Your task to perform on an android device: Open Chrome and go to the settings page Image 0: 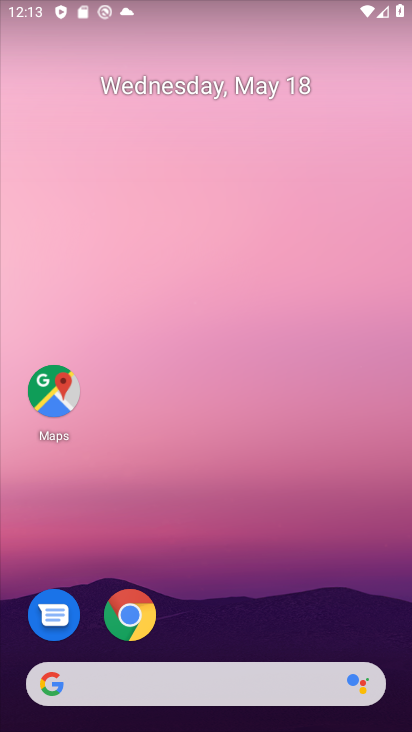
Step 0: click (139, 623)
Your task to perform on an android device: Open Chrome and go to the settings page Image 1: 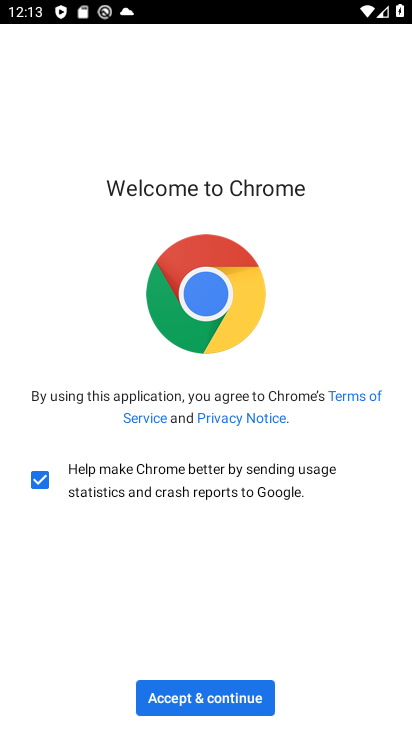
Step 1: click (265, 697)
Your task to perform on an android device: Open Chrome and go to the settings page Image 2: 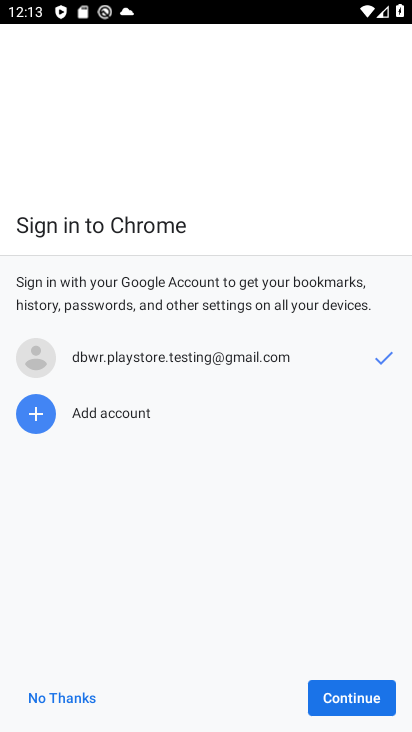
Step 2: click (265, 697)
Your task to perform on an android device: Open Chrome and go to the settings page Image 3: 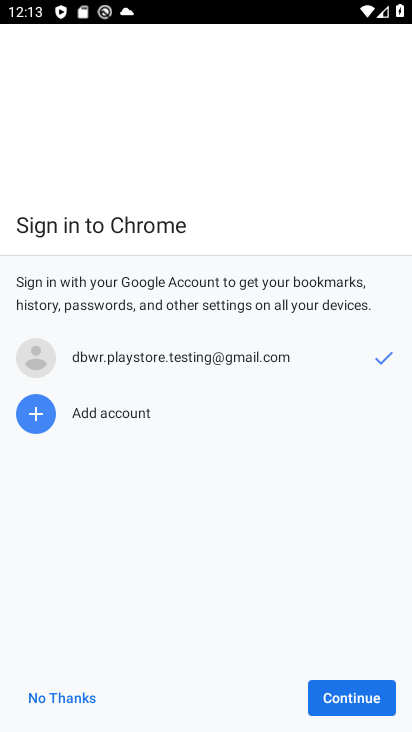
Step 3: click (339, 707)
Your task to perform on an android device: Open Chrome and go to the settings page Image 4: 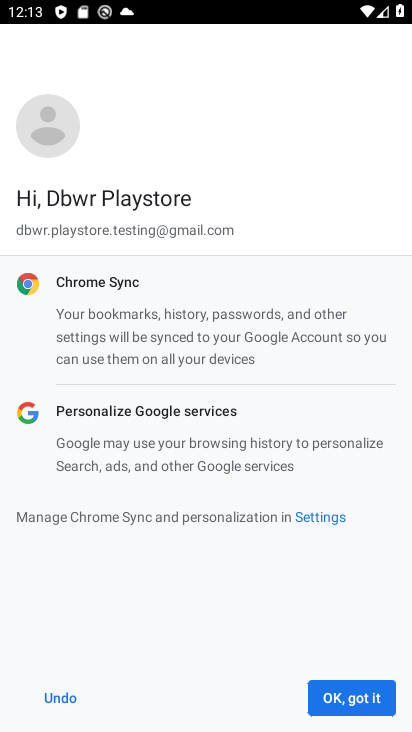
Step 4: click (345, 699)
Your task to perform on an android device: Open Chrome and go to the settings page Image 5: 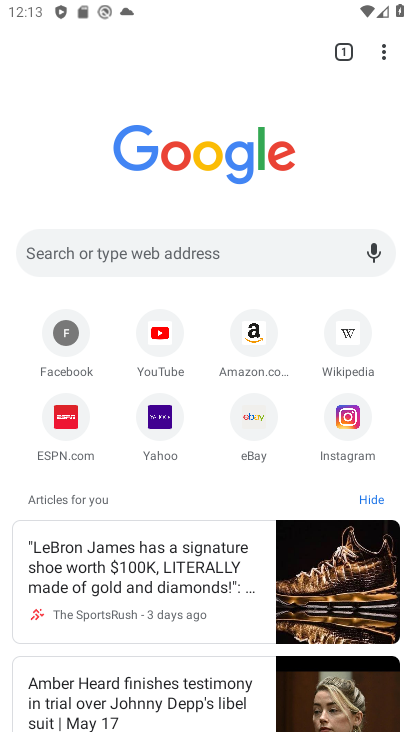
Step 5: task complete